Your task to perform on an android device: Check the weather Image 0: 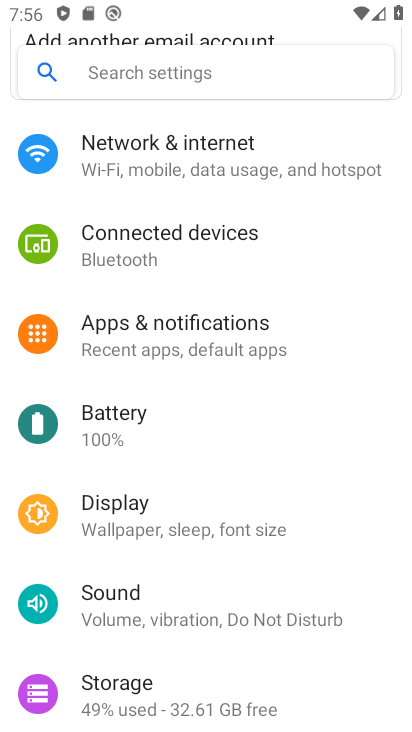
Step 0: press home button
Your task to perform on an android device: Check the weather Image 1: 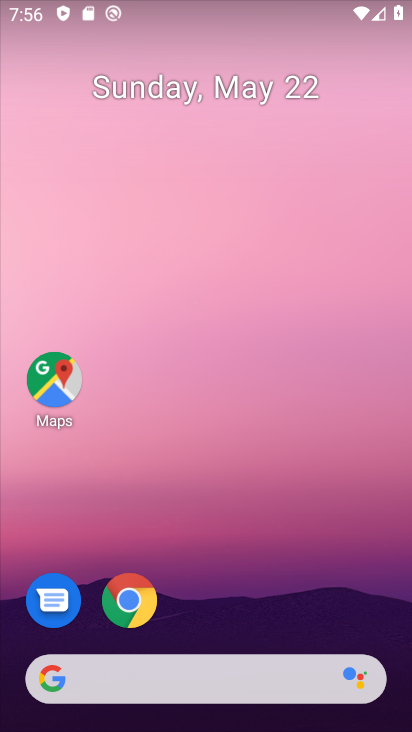
Step 1: drag from (113, 668) to (132, 332)
Your task to perform on an android device: Check the weather Image 2: 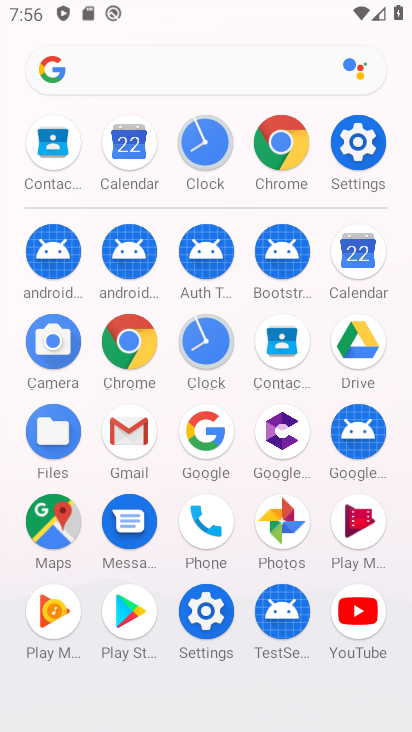
Step 2: click (200, 436)
Your task to perform on an android device: Check the weather Image 3: 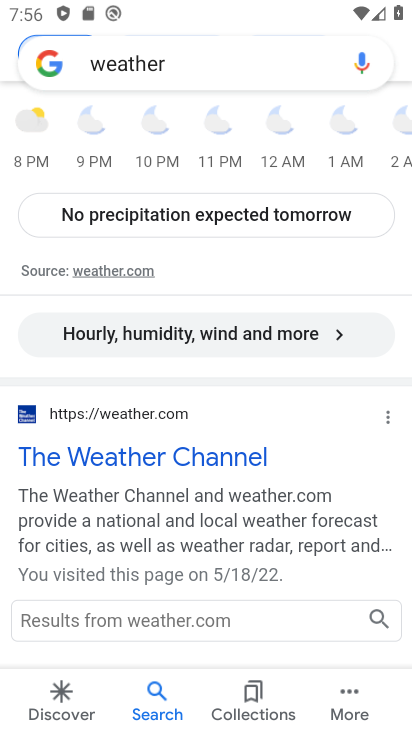
Step 3: task complete